Your task to perform on an android device: Do I have any events today? Image 0: 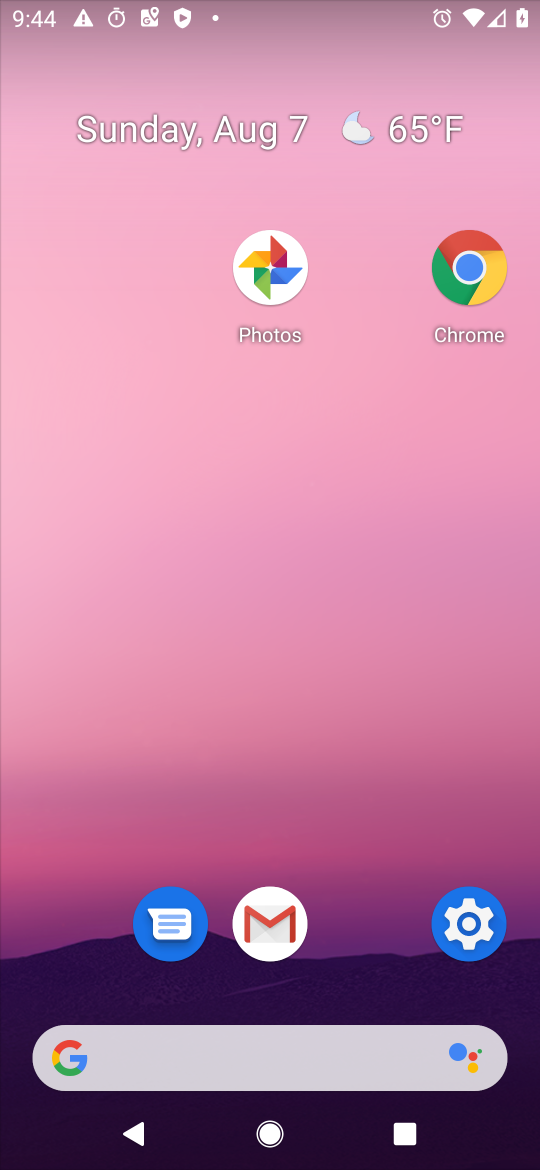
Step 0: press home button
Your task to perform on an android device: Do I have any events today? Image 1: 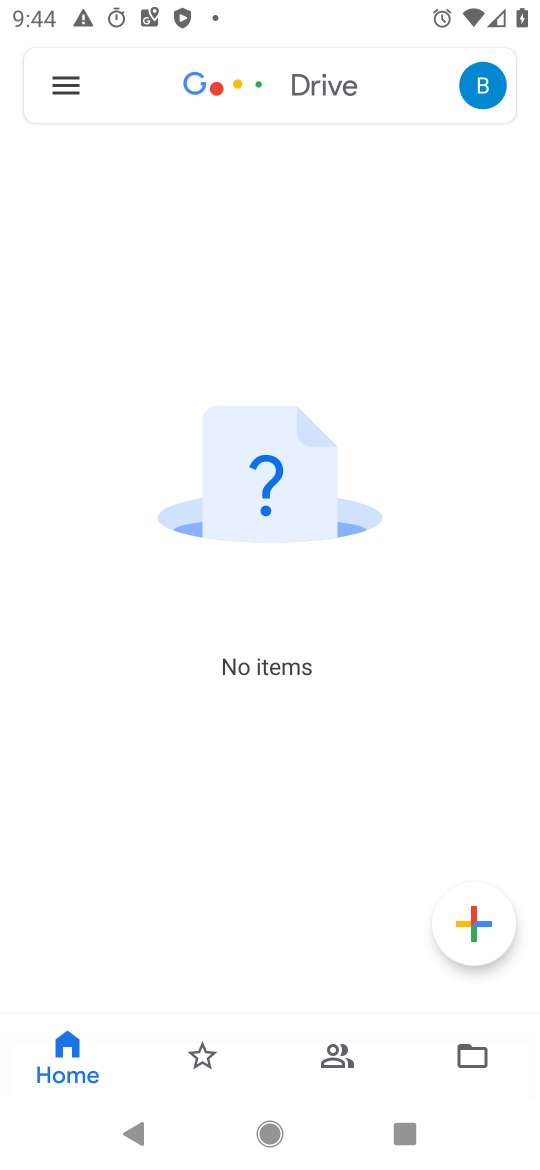
Step 1: drag from (388, 544) to (429, 255)
Your task to perform on an android device: Do I have any events today? Image 2: 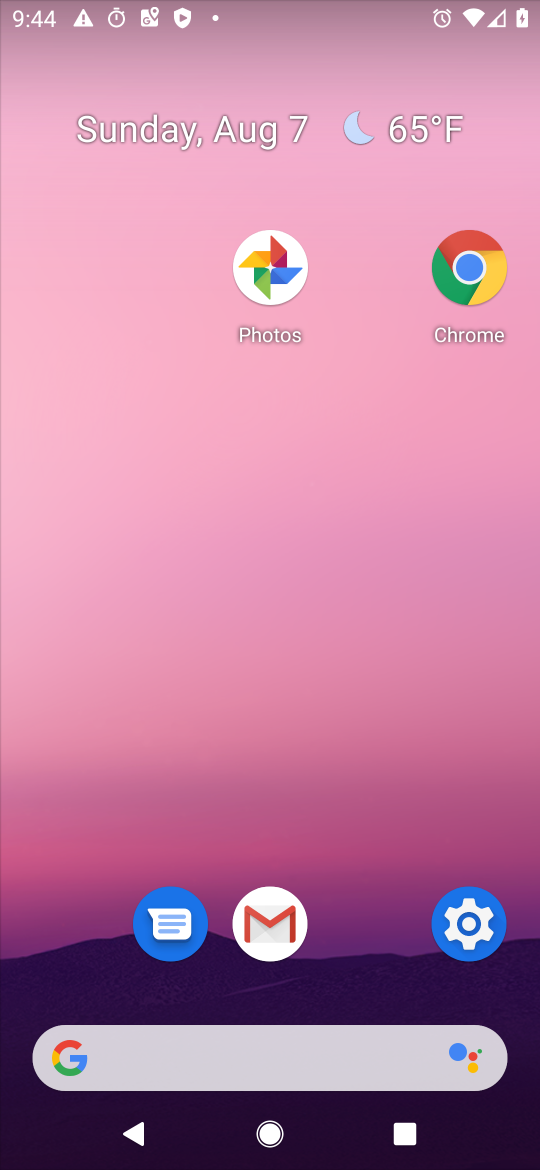
Step 2: click (308, 269)
Your task to perform on an android device: Do I have any events today? Image 3: 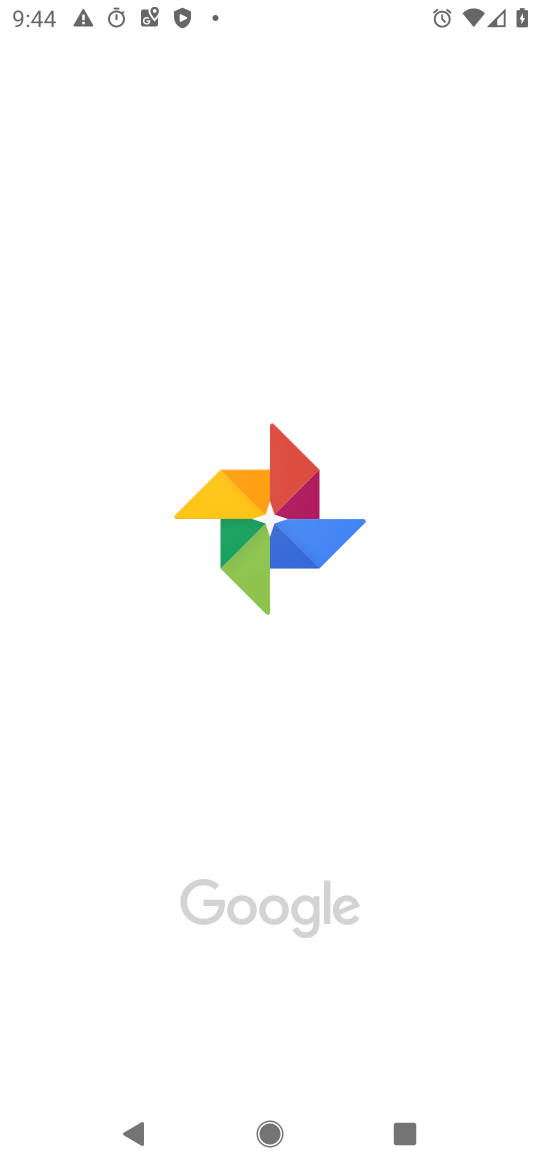
Step 3: press home button
Your task to perform on an android device: Do I have any events today? Image 4: 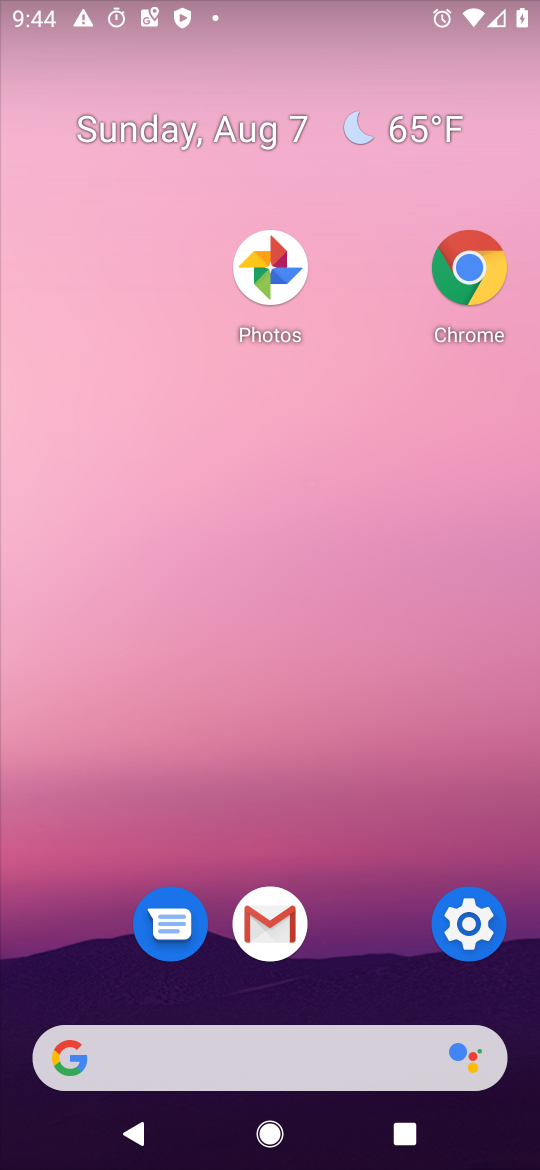
Step 4: drag from (254, 1081) to (414, 139)
Your task to perform on an android device: Do I have any events today? Image 5: 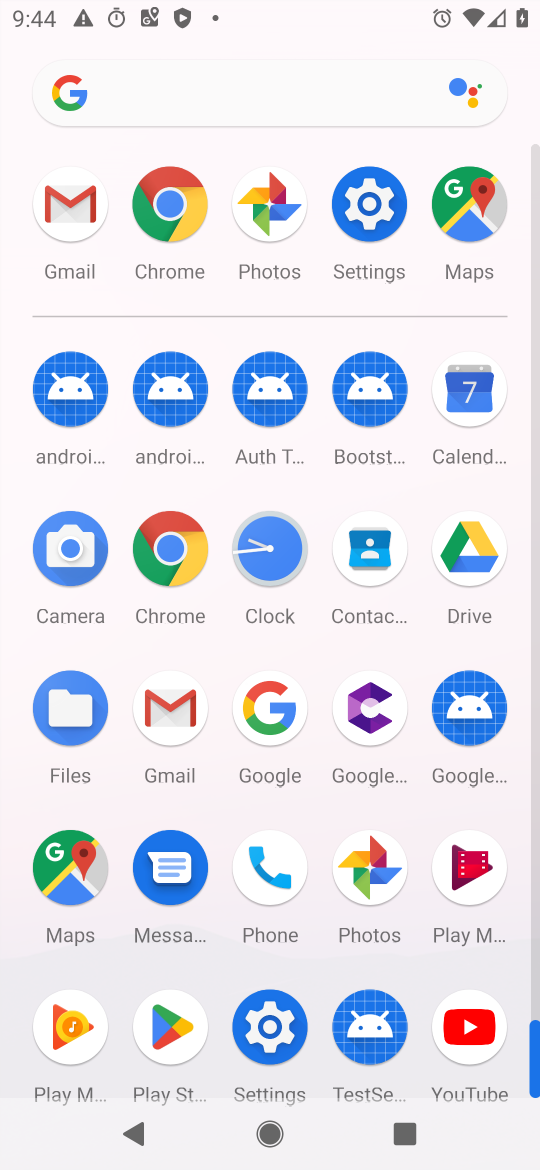
Step 5: click (465, 404)
Your task to perform on an android device: Do I have any events today? Image 6: 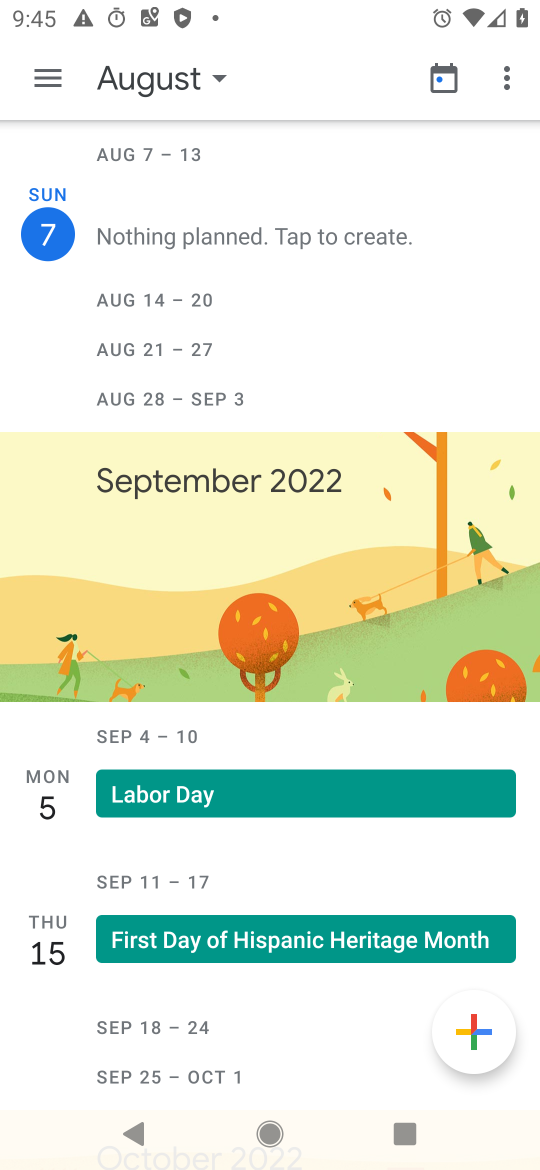
Step 6: task complete